Your task to perform on an android device: open app "Firefox Browser" (install if not already installed) and enter user name: "hashed@outlook.com" and password: "congestive" Image 0: 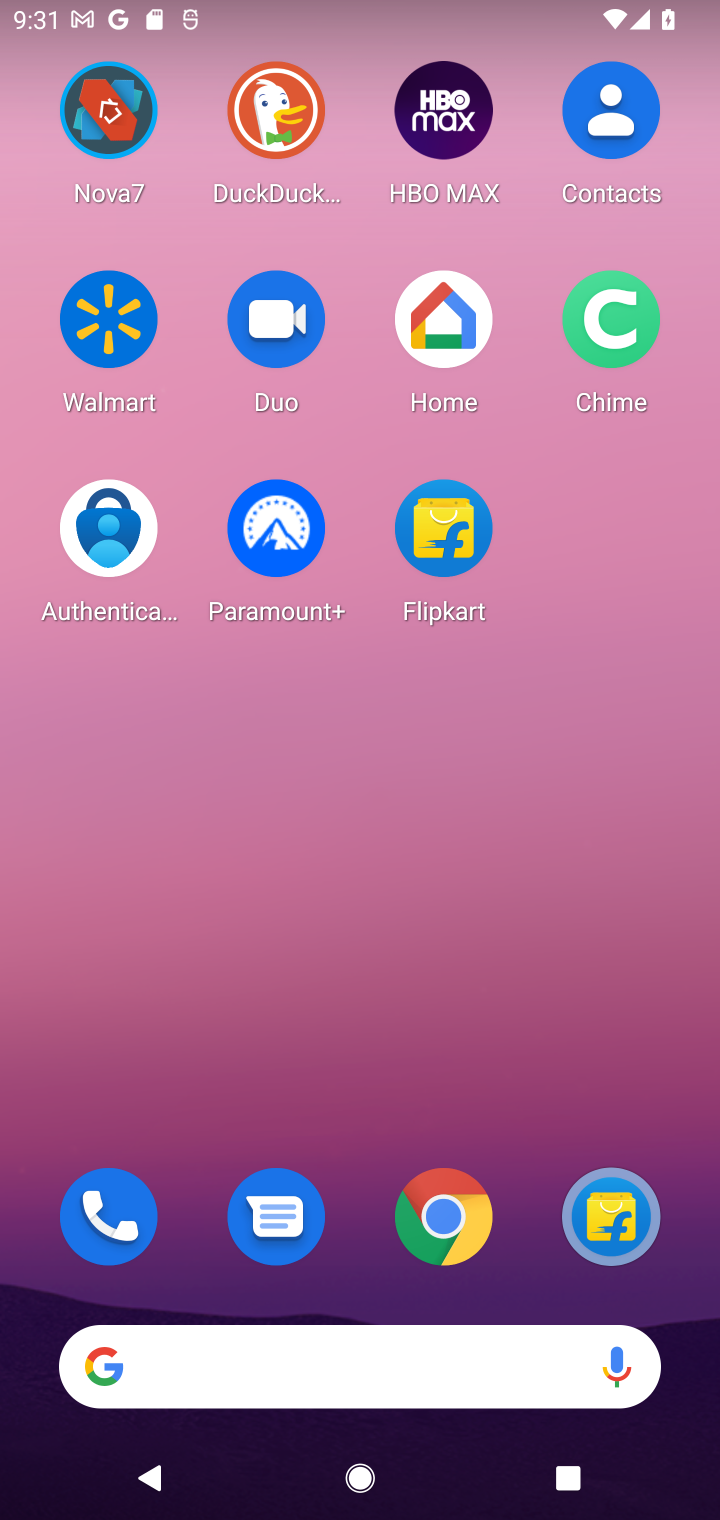
Step 0: press home button
Your task to perform on an android device: open app "Firefox Browser" (install if not already installed) and enter user name: "hashed@outlook.com" and password: "congestive" Image 1: 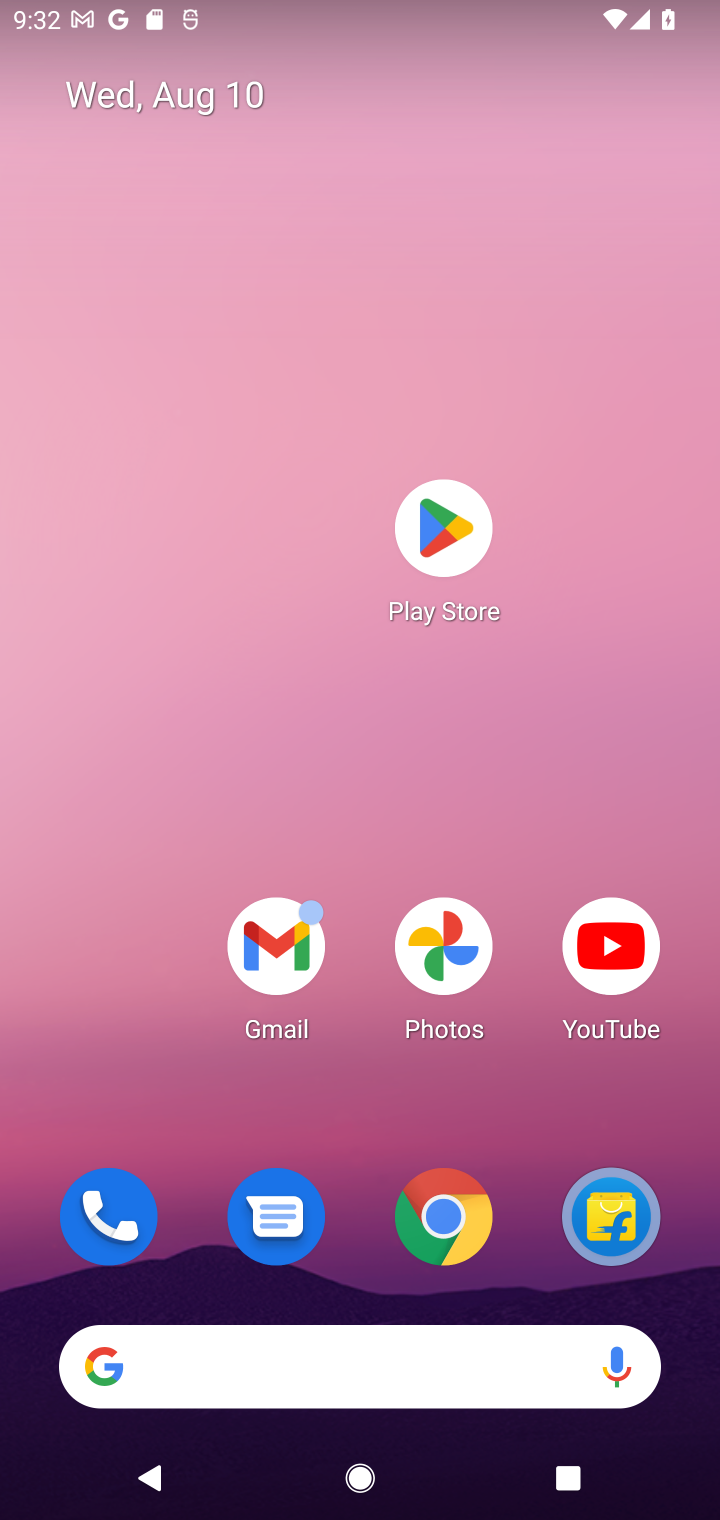
Step 1: click (447, 541)
Your task to perform on an android device: open app "Firefox Browser" (install if not already installed) and enter user name: "hashed@outlook.com" and password: "congestive" Image 2: 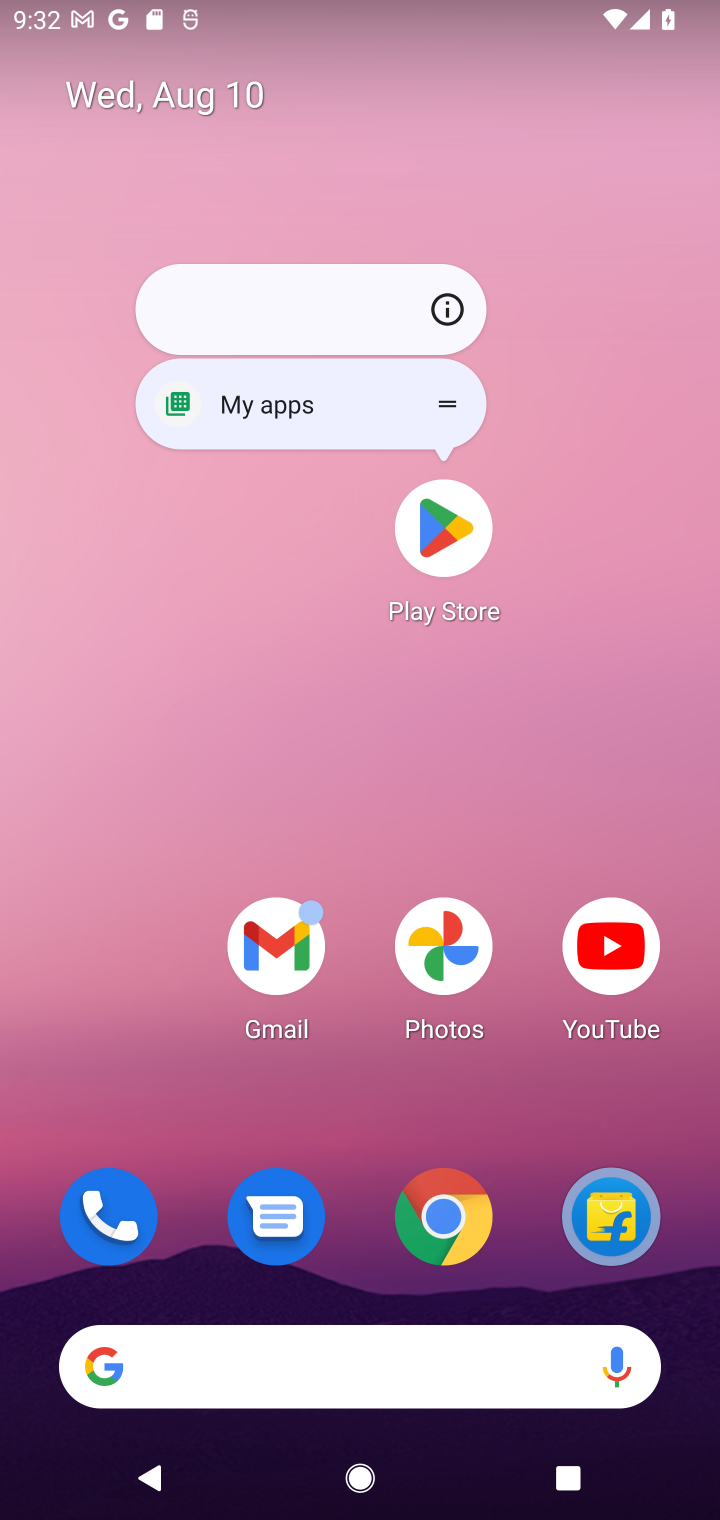
Step 2: click (439, 525)
Your task to perform on an android device: open app "Firefox Browser" (install if not already installed) and enter user name: "hashed@outlook.com" and password: "congestive" Image 3: 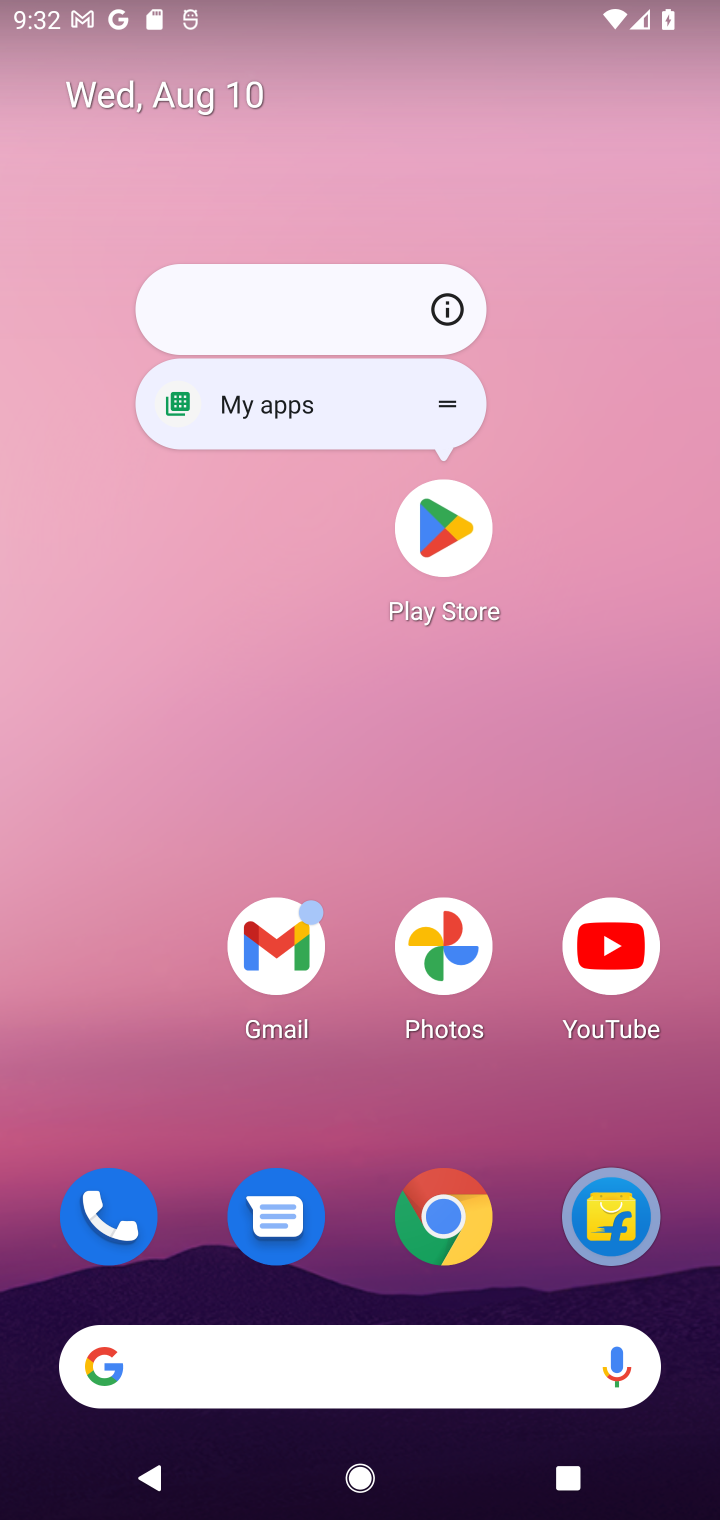
Step 3: click (445, 552)
Your task to perform on an android device: open app "Firefox Browser" (install if not already installed) and enter user name: "hashed@outlook.com" and password: "congestive" Image 4: 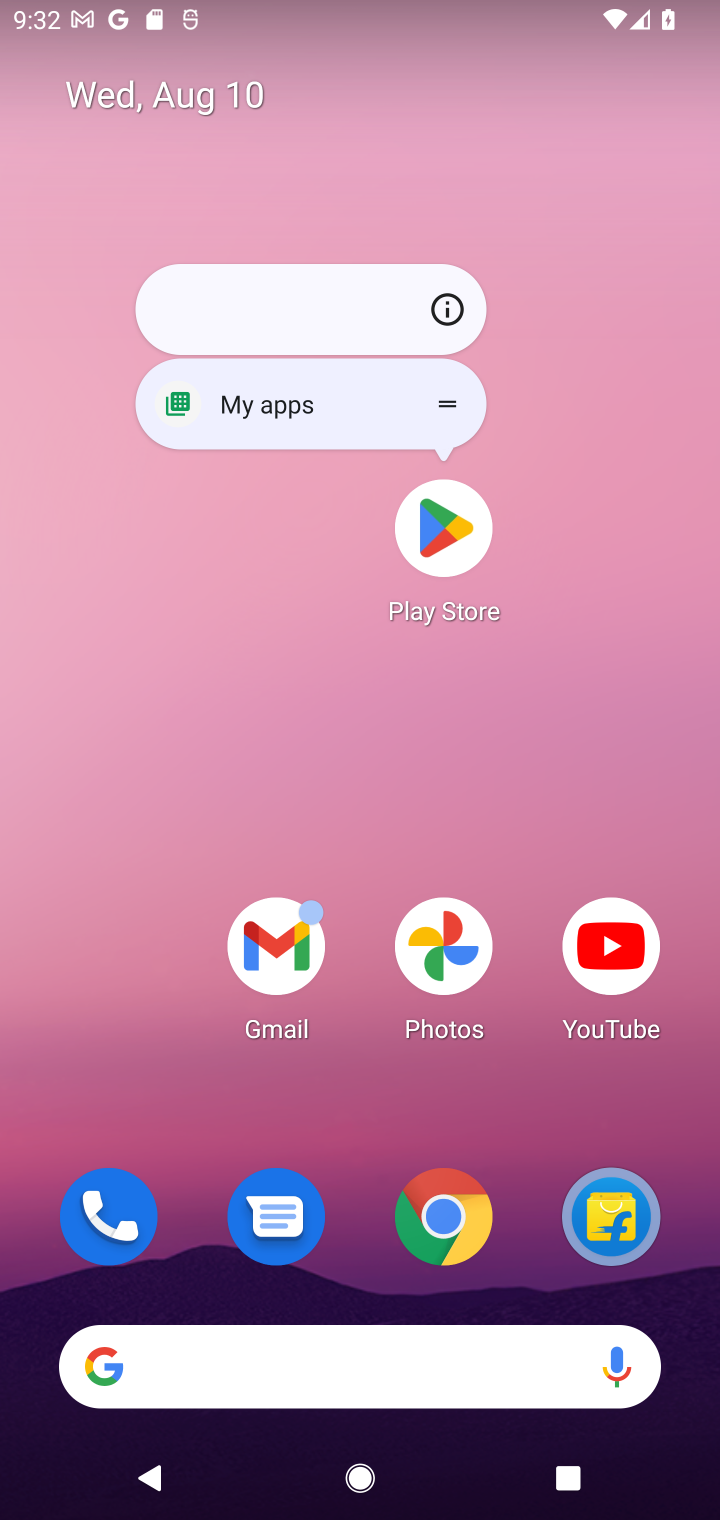
Step 4: click (439, 535)
Your task to perform on an android device: open app "Firefox Browser" (install if not already installed) and enter user name: "hashed@outlook.com" and password: "congestive" Image 5: 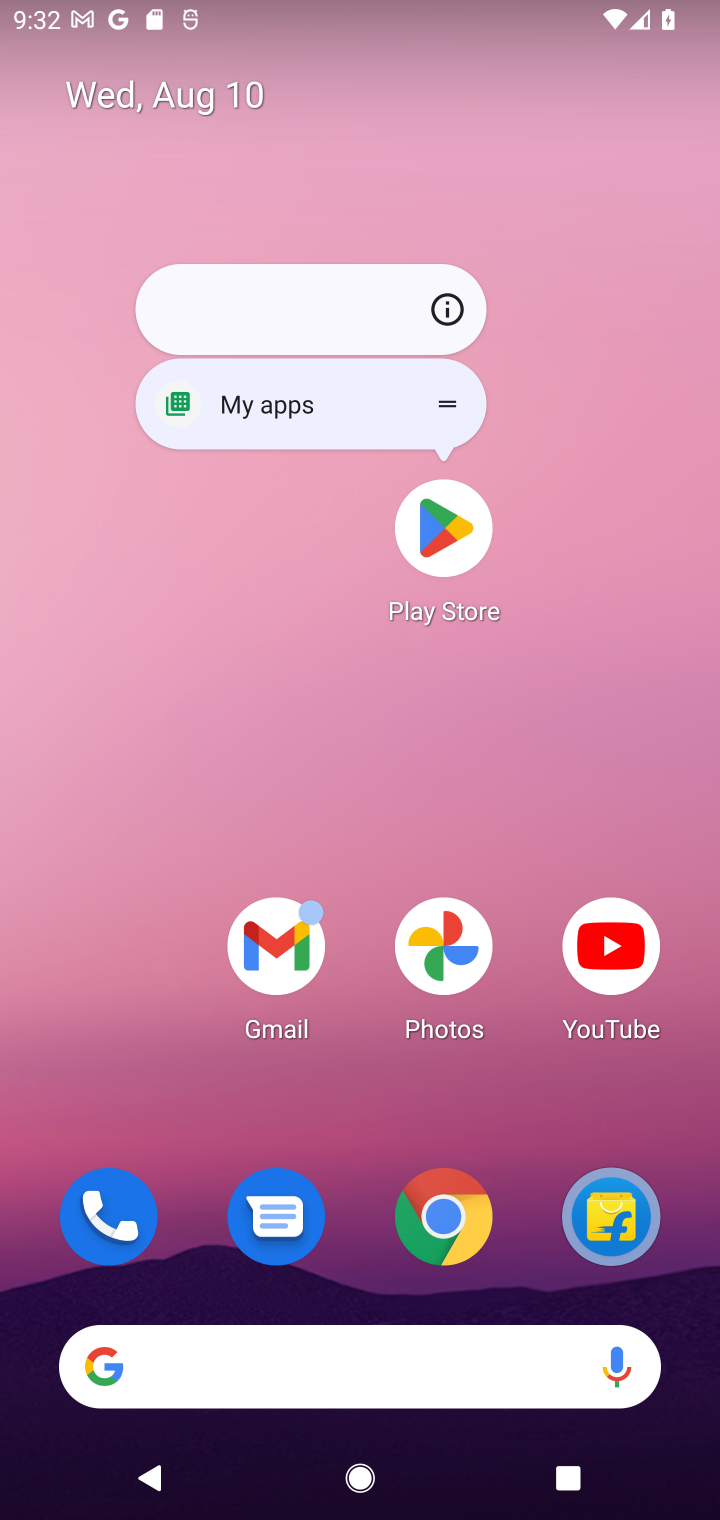
Step 5: click (439, 539)
Your task to perform on an android device: open app "Firefox Browser" (install if not already installed) and enter user name: "hashed@outlook.com" and password: "congestive" Image 6: 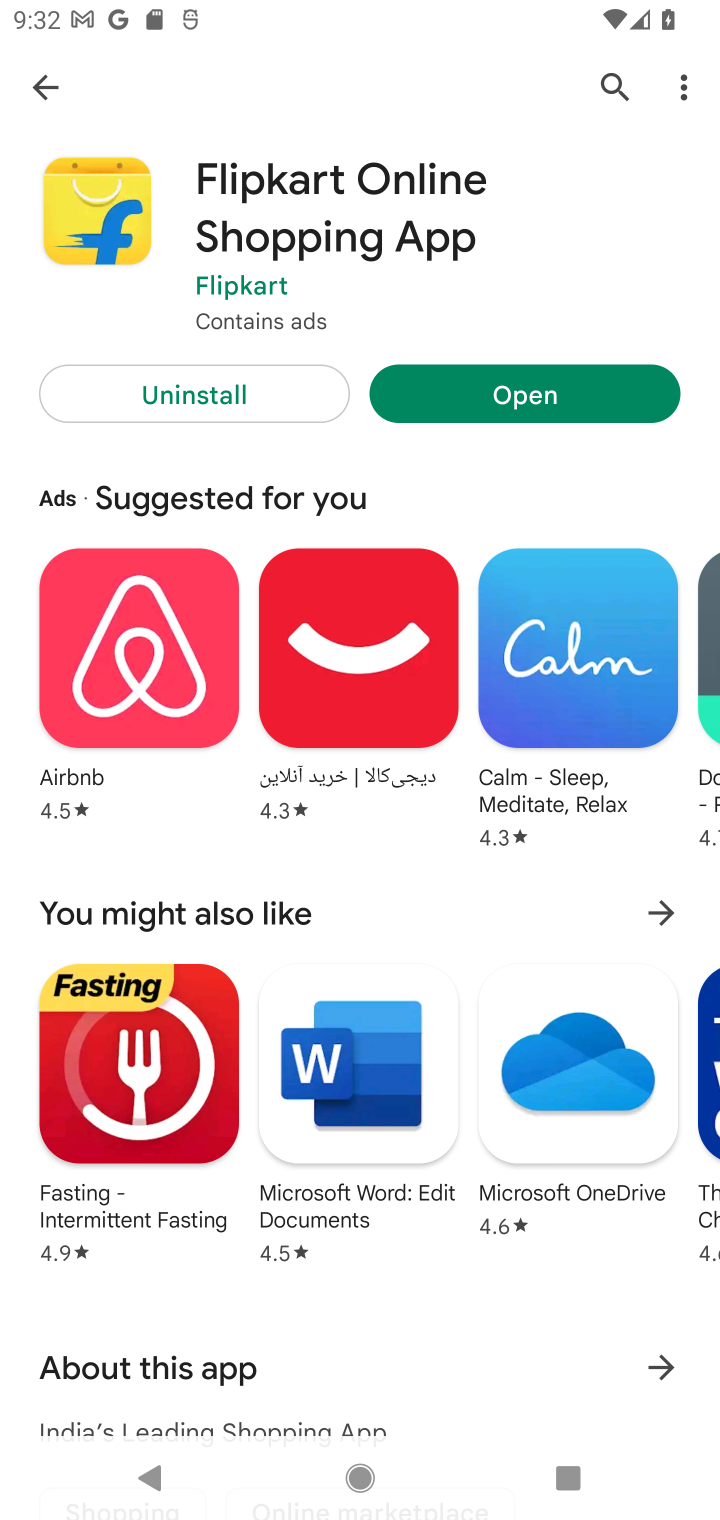
Step 6: click (603, 74)
Your task to perform on an android device: open app "Firefox Browser" (install if not already installed) and enter user name: "hashed@outlook.com" and password: "congestive" Image 7: 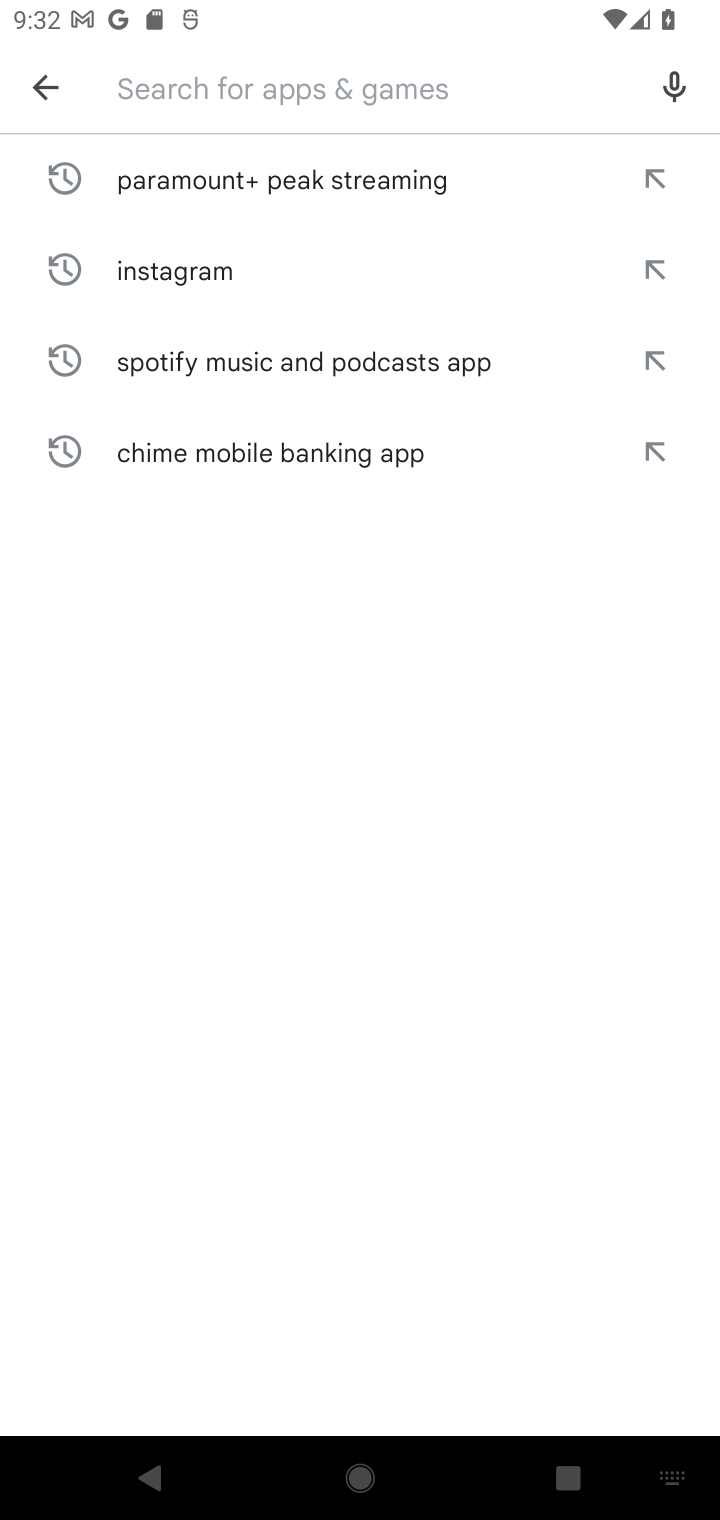
Step 7: type "Firefox Browser"
Your task to perform on an android device: open app "Firefox Browser" (install if not already installed) and enter user name: "hashed@outlook.com" and password: "congestive" Image 8: 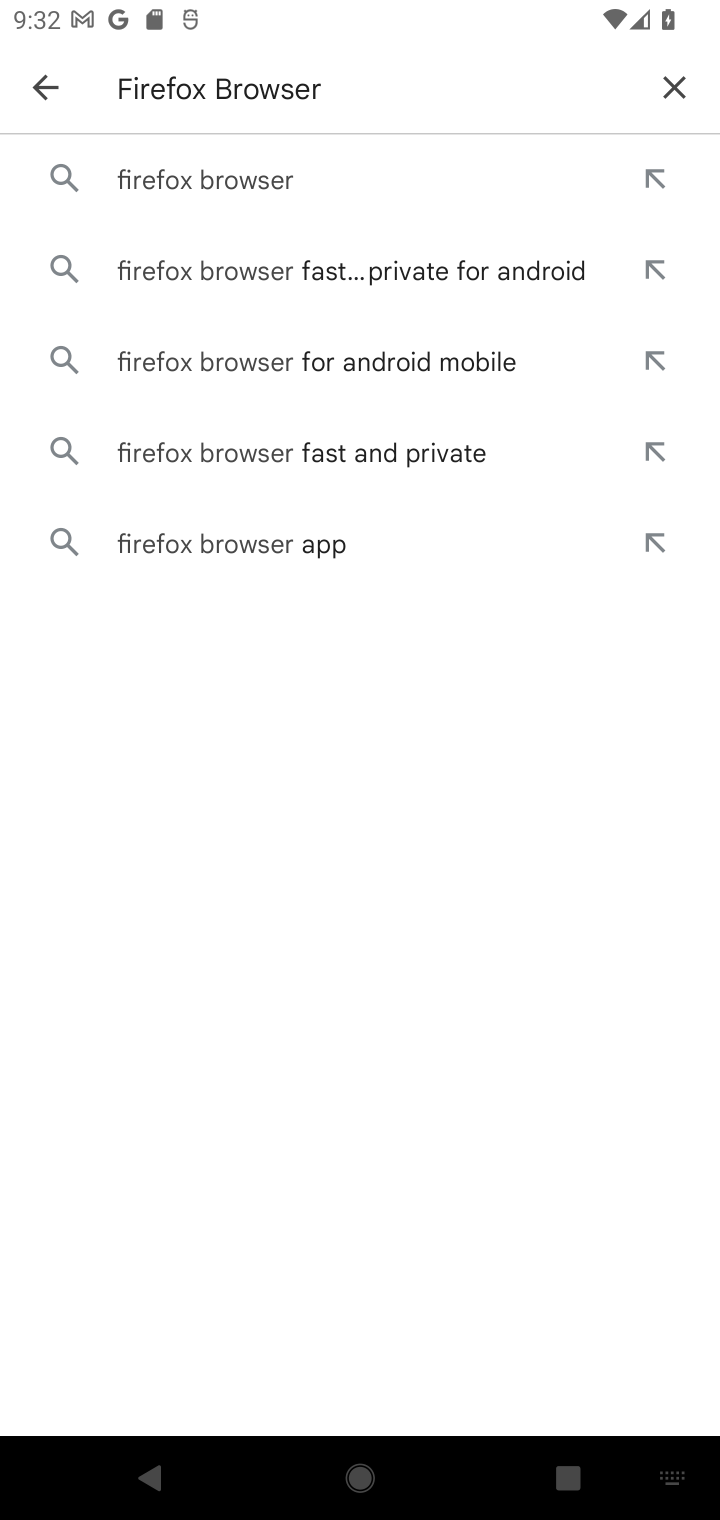
Step 8: click (244, 182)
Your task to perform on an android device: open app "Firefox Browser" (install if not already installed) and enter user name: "hashed@outlook.com" and password: "congestive" Image 9: 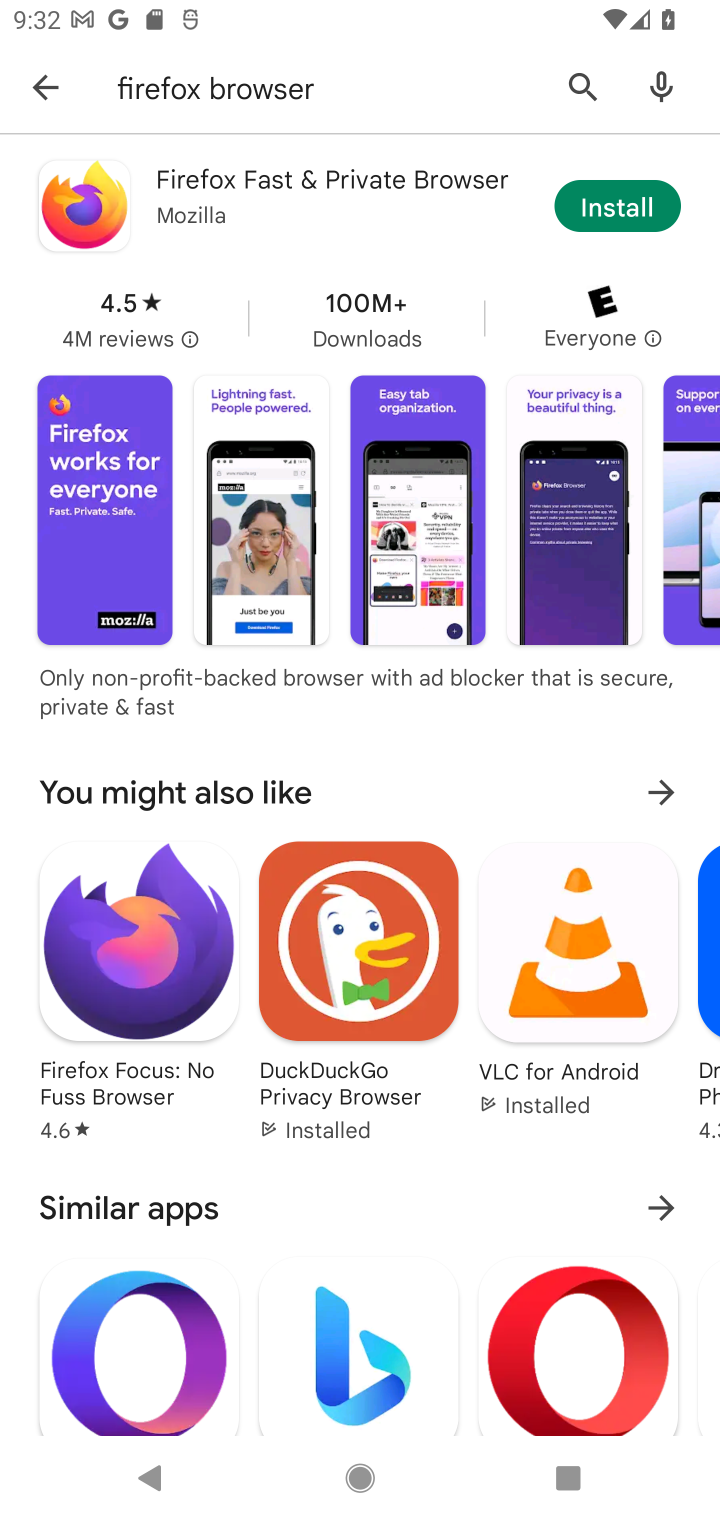
Step 9: click (621, 199)
Your task to perform on an android device: open app "Firefox Browser" (install if not already installed) and enter user name: "hashed@outlook.com" and password: "congestive" Image 10: 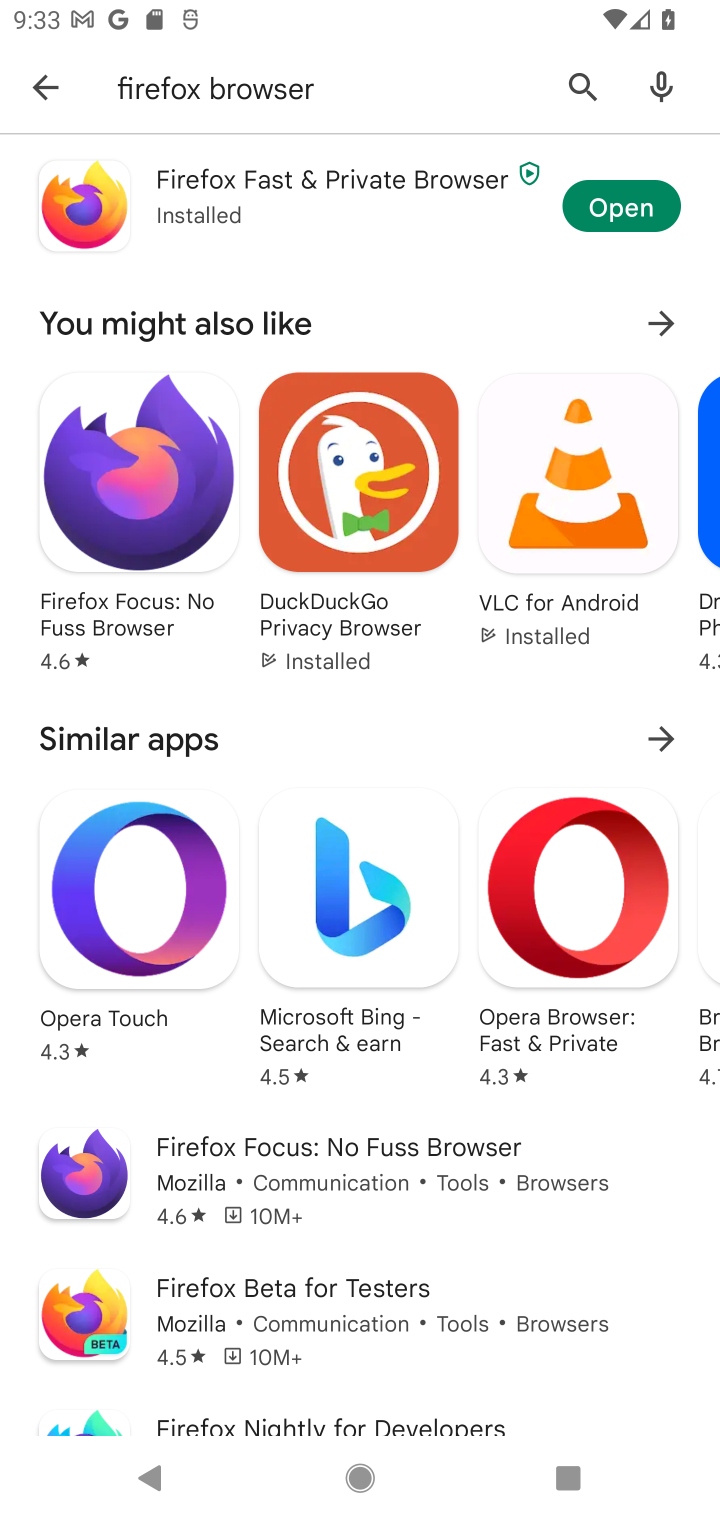
Step 10: click (650, 200)
Your task to perform on an android device: open app "Firefox Browser" (install if not already installed) and enter user name: "hashed@outlook.com" and password: "congestive" Image 11: 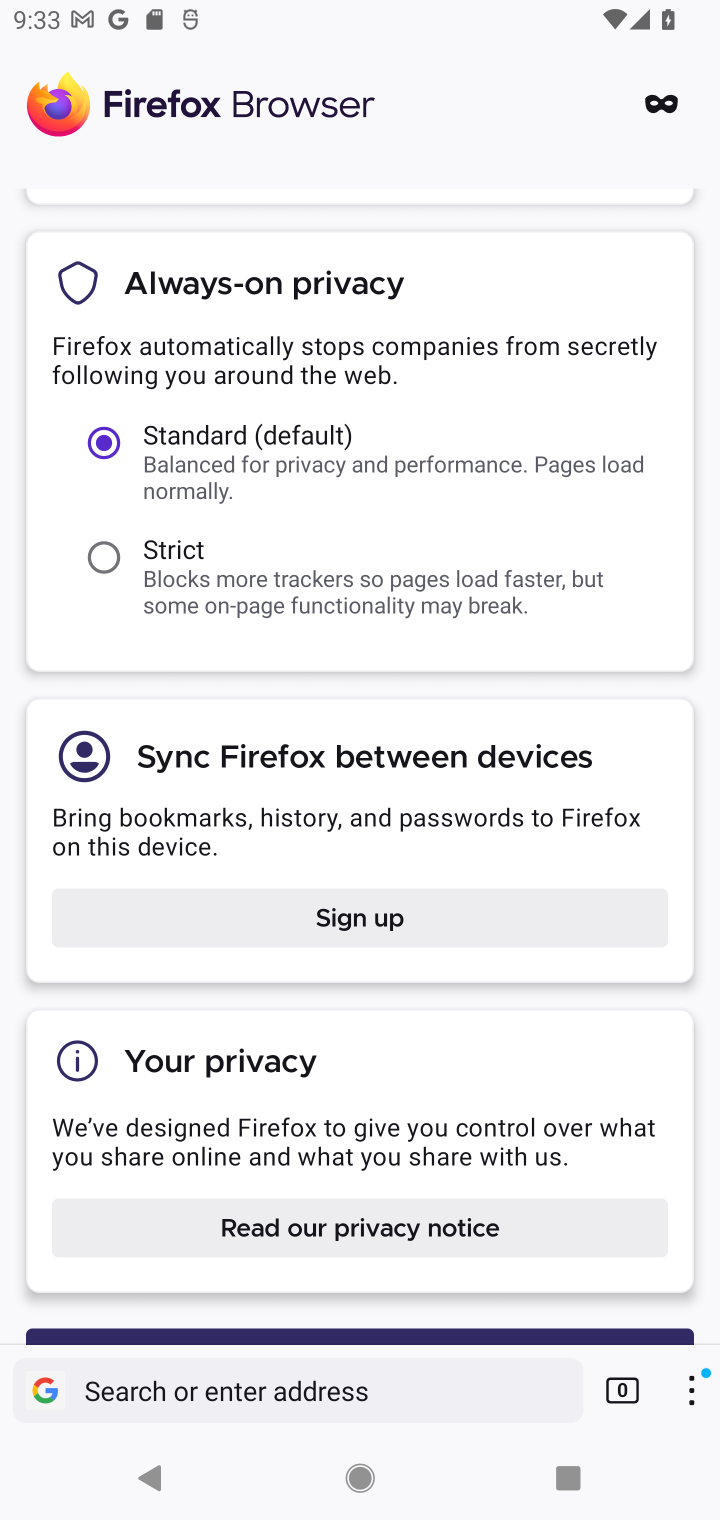
Step 11: task complete